Your task to perform on an android device: Go to display settings Image 0: 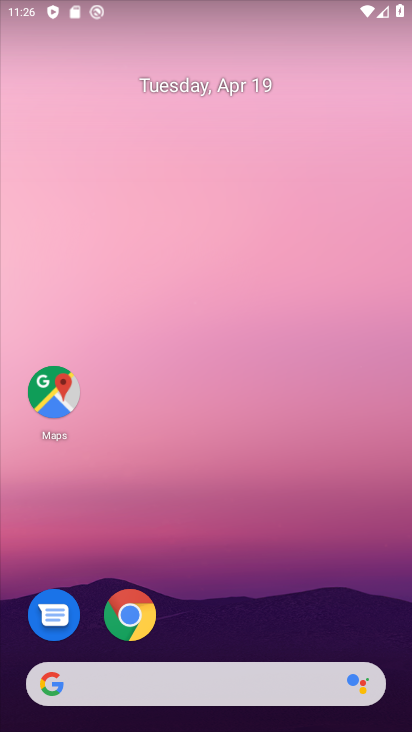
Step 0: drag from (222, 587) to (226, 96)
Your task to perform on an android device: Go to display settings Image 1: 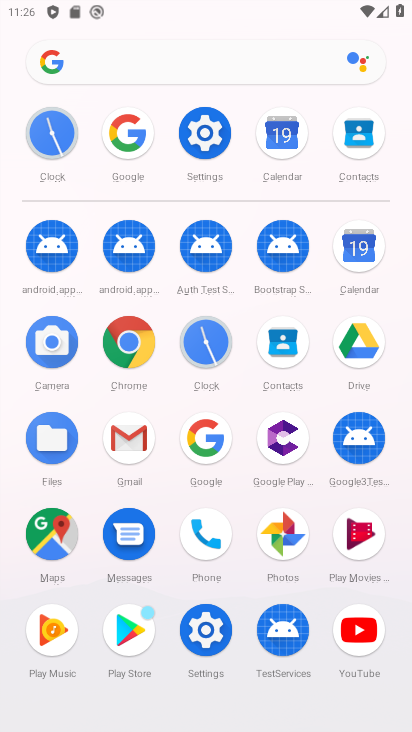
Step 1: click (200, 129)
Your task to perform on an android device: Go to display settings Image 2: 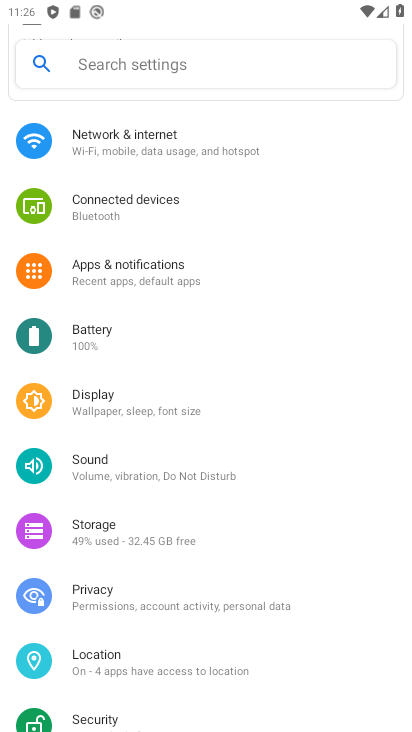
Step 2: drag from (187, 306) to (94, 413)
Your task to perform on an android device: Go to display settings Image 3: 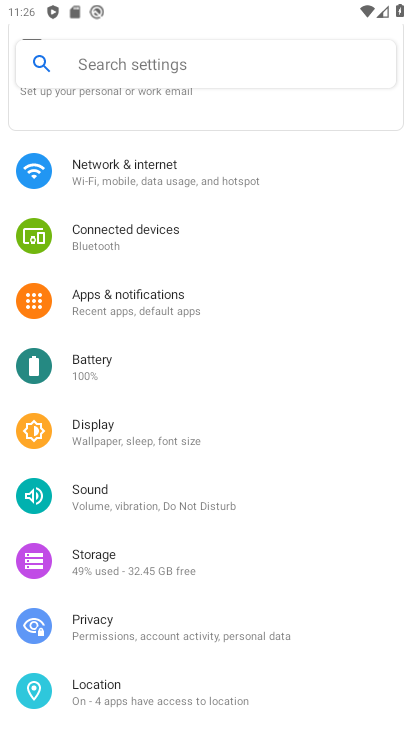
Step 3: click (136, 435)
Your task to perform on an android device: Go to display settings Image 4: 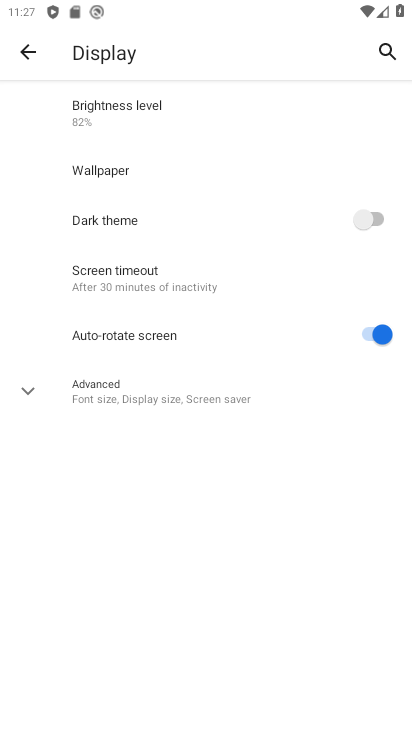
Step 4: task complete